Your task to perform on an android device: Search for "usb-c to usb-a" on bestbuy.com, select the first entry, and add it to the cart. Image 0: 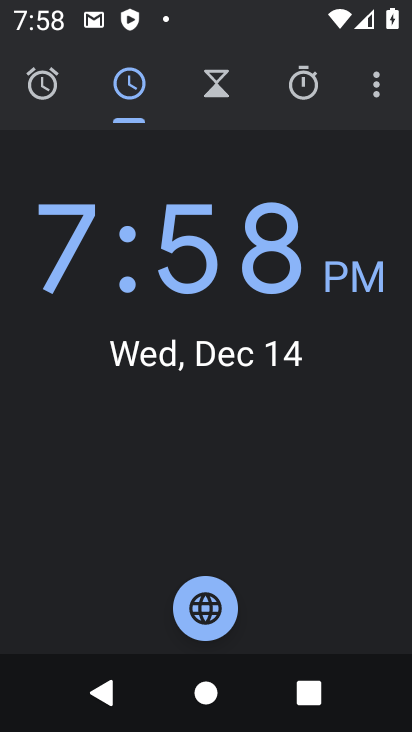
Step 0: press home button
Your task to perform on an android device: Search for "usb-c to usb-a" on bestbuy.com, select the first entry, and add it to the cart. Image 1: 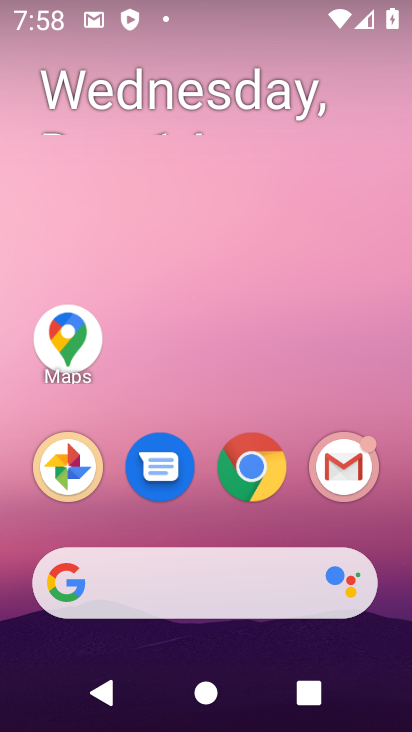
Step 1: click (283, 590)
Your task to perform on an android device: Search for "usb-c to usb-a" on bestbuy.com, select the first entry, and add it to the cart. Image 2: 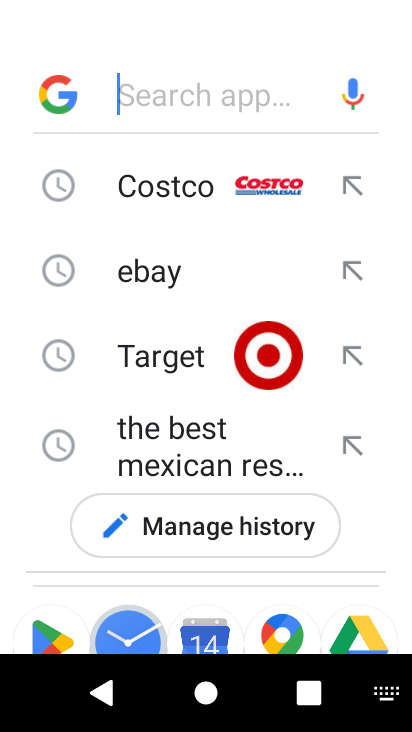
Step 2: type "bestbuy"
Your task to perform on an android device: Search for "usb-c to usb-a" on bestbuy.com, select the first entry, and add it to the cart. Image 3: 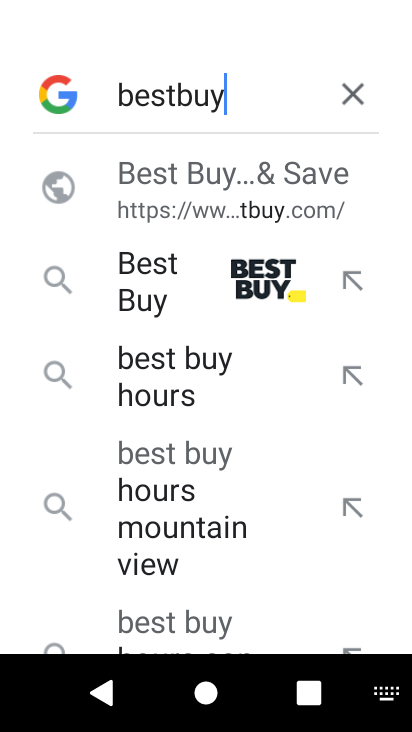
Step 3: click (130, 176)
Your task to perform on an android device: Search for "usb-c to usb-a" on bestbuy.com, select the first entry, and add it to the cart. Image 4: 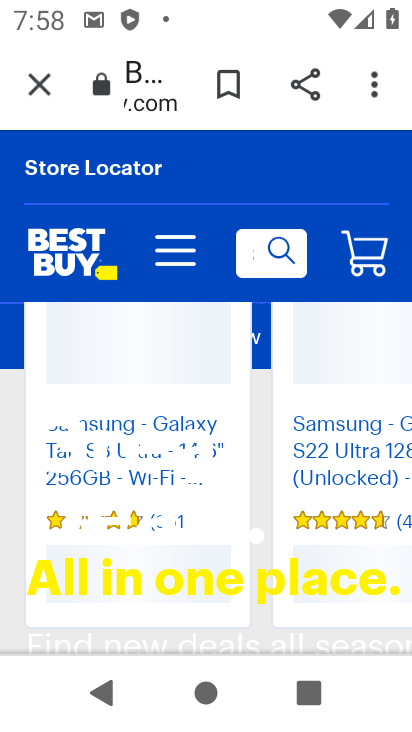
Step 4: click (257, 254)
Your task to perform on an android device: Search for "usb-c to usb-a" on bestbuy.com, select the first entry, and add it to the cart. Image 5: 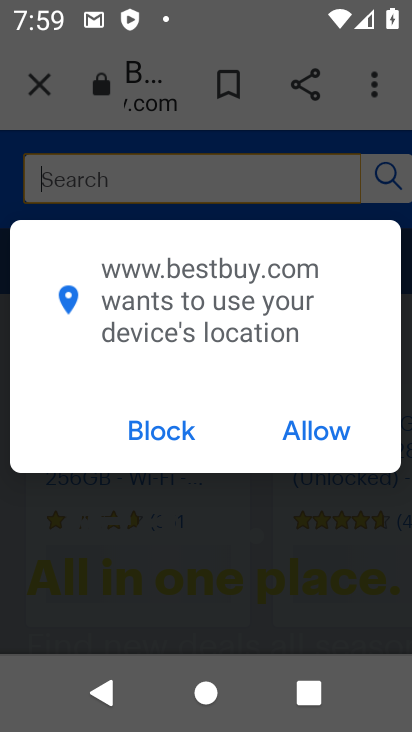
Step 5: type "usb-c to usb-"
Your task to perform on an android device: Search for "usb-c to usb-a" on bestbuy.com, select the first entry, and add it to the cart. Image 6: 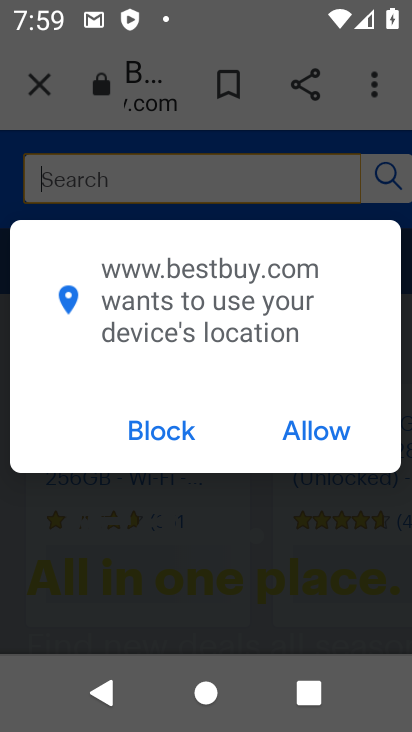
Step 6: click (322, 432)
Your task to perform on an android device: Search for "usb-c to usb-a" on bestbuy.com, select the first entry, and add it to the cart. Image 7: 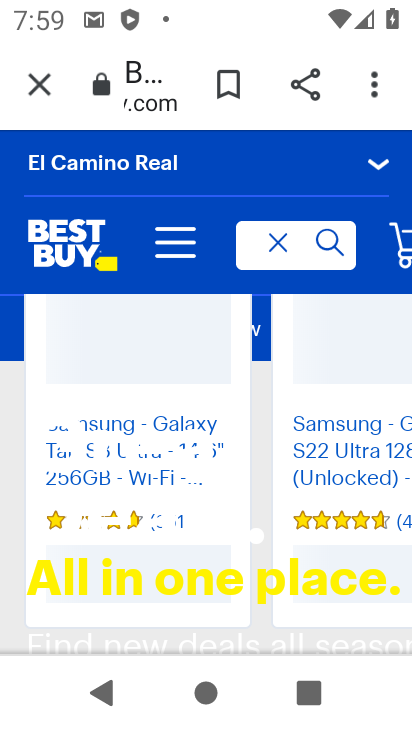
Step 7: click (272, 256)
Your task to perform on an android device: Search for "usb-c to usb-a" on bestbuy.com, select the first entry, and add it to the cart. Image 8: 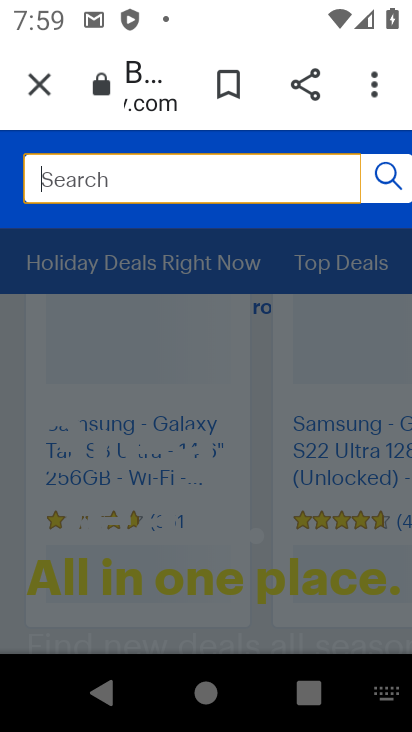
Step 8: type "usb-c to usb-a"
Your task to perform on an android device: Search for "usb-c to usb-a" on bestbuy.com, select the first entry, and add it to the cart. Image 9: 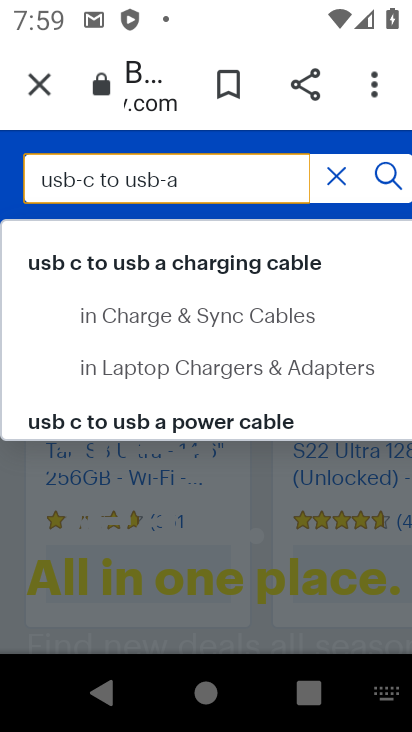
Step 9: click (251, 272)
Your task to perform on an android device: Search for "usb-c to usb-a" on bestbuy.com, select the first entry, and add it to the cart. Image 10: 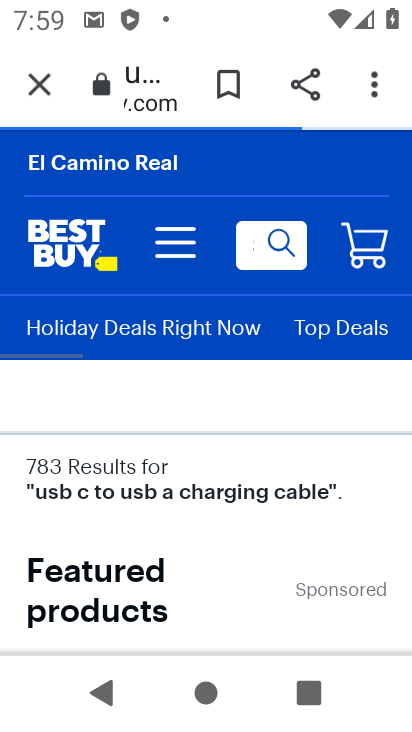
Step 10: click (379, 184)
Your task to perform on an android device: Search for "usb-c to usb-a" on bestbuy.com, select the first entry, and add it to the cart. Image 11: 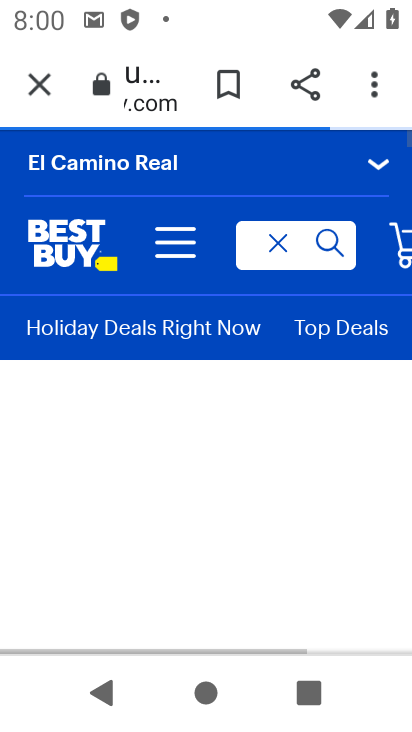
Step 11: task complete